Your task to perform on an android device: Check the news Image 0: 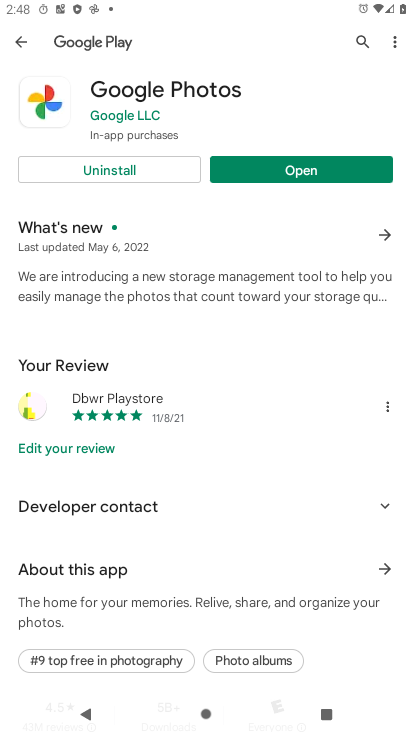
Step 0: press home button
Your task to perform on an android device: Check the news Image 1: 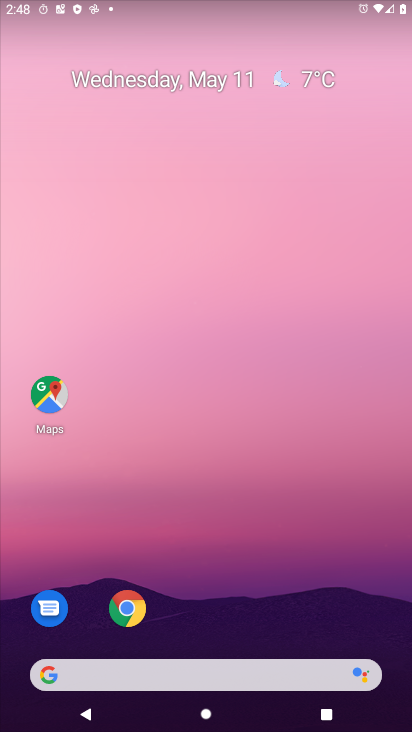
Step 1: drag from (227, 604) to (265, 78)
Your task to perform on an android device: Check the news Image 2: 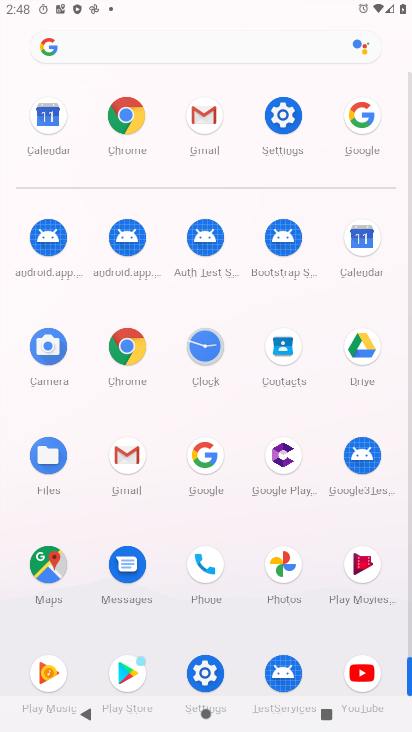
Step 2: click (205, 459)
Your task to perform on an android device: Check the news Image 3: 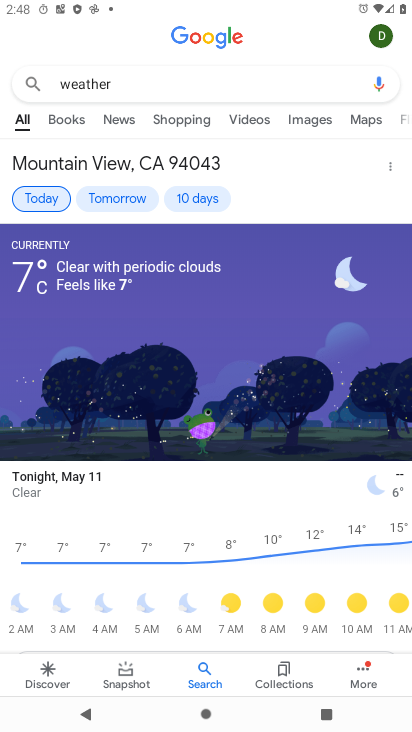
Step 3: click (218, 77)
Your task to perform on an android device: Check the news Image 4: 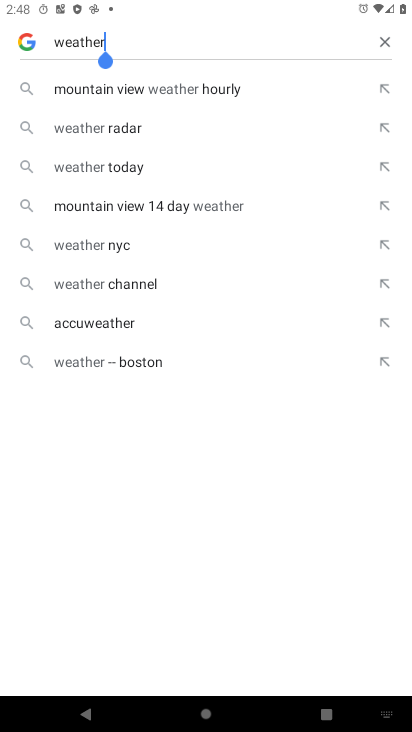
Step 4: click (381, 41)
Your task to perform on an android device: Check the news Image 5: 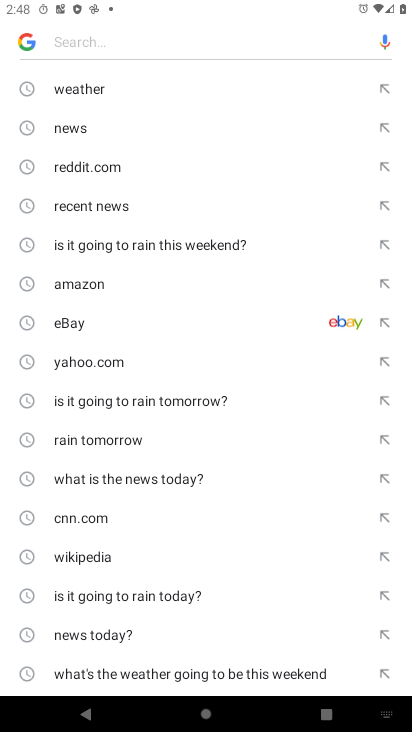
Step 5: click (97, 117)
Your task to perform on an android device: Check the news Image 6: 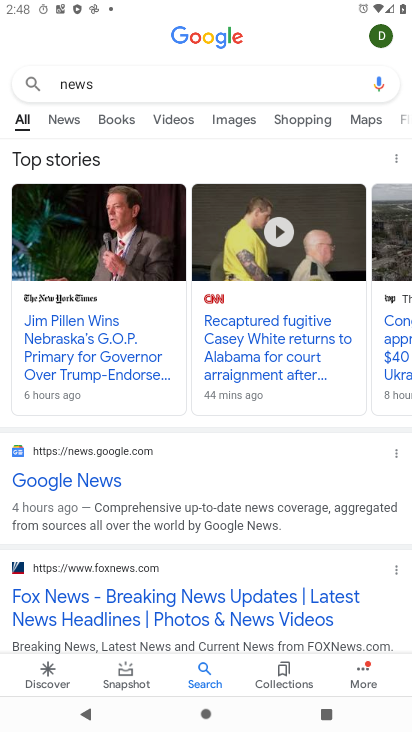
Step 6: task complete